Your task to perform on an android device: change timer sound Image 0: 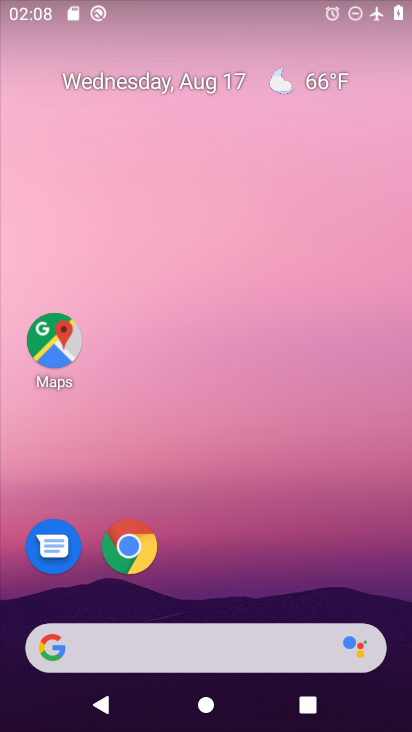
Step 0: drag from (243, 584) to (233, 130)
Your task to perform on an android device: change timer sound Image 1: 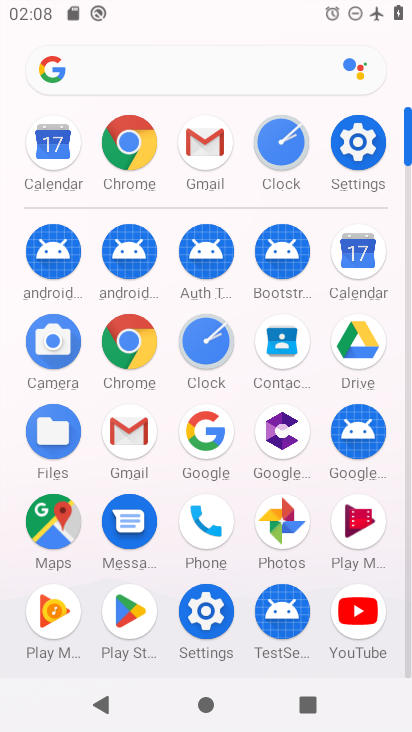
Step 1: click (205, 341)
Your task to perform on an android device: change timer sound Image 2: 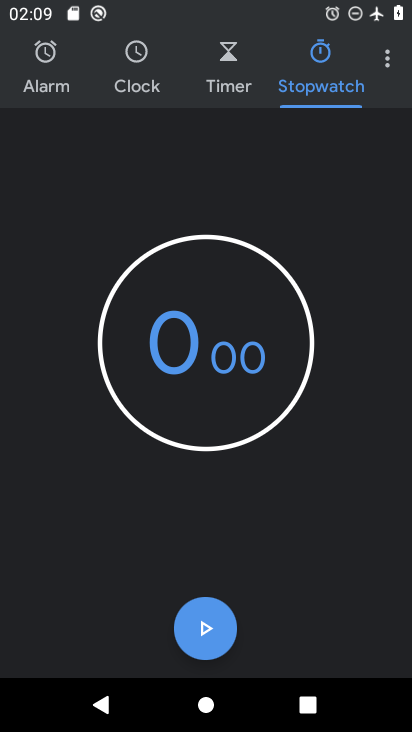
Step 2: click (384, 56)
Your task to perform on an android device: change timer sound Image 3: 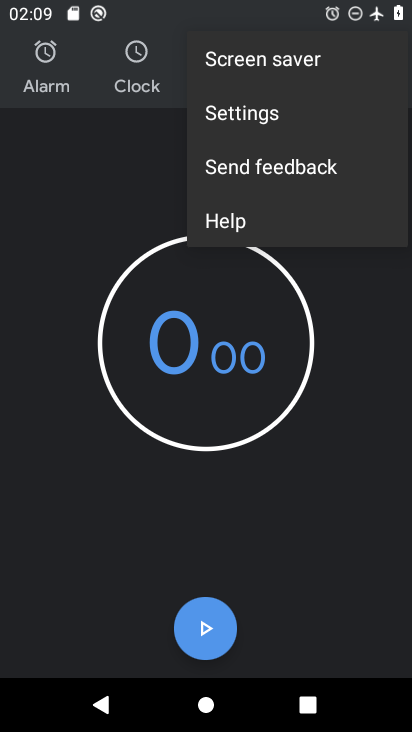
Step 3: click (246, 113)
Your task to perform on an android device: change timer sound Image 4: 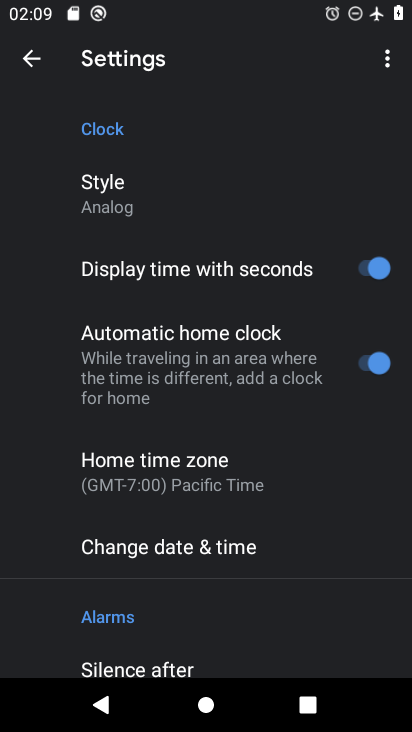
Step 4: drag from (199, 606) to (167, 208)
Your task to perform on an android device: change timer sound Image 5: 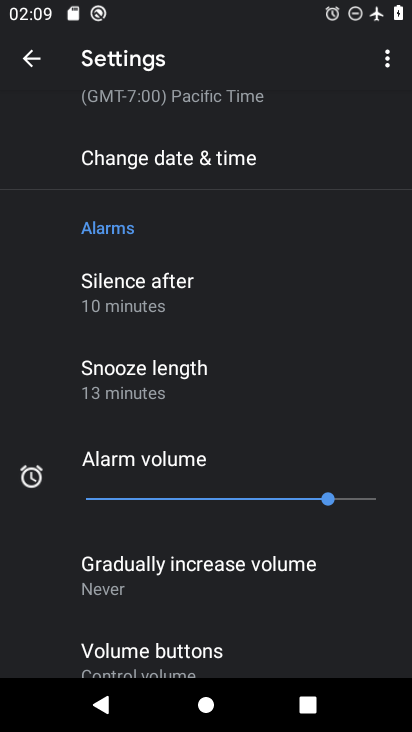
Step 5: drag from (239, 606) to (222, 253)
Your task to perform on an android device: change timer sound Image 6: 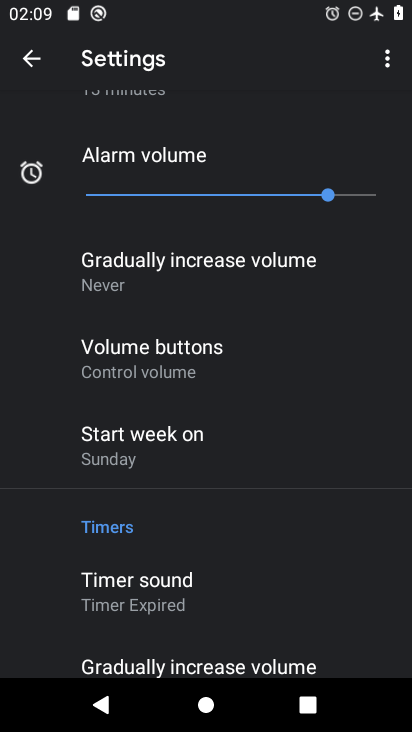
Step 6: click (152, 578)
Your task to perform on an android device: change timer sound Image 7: 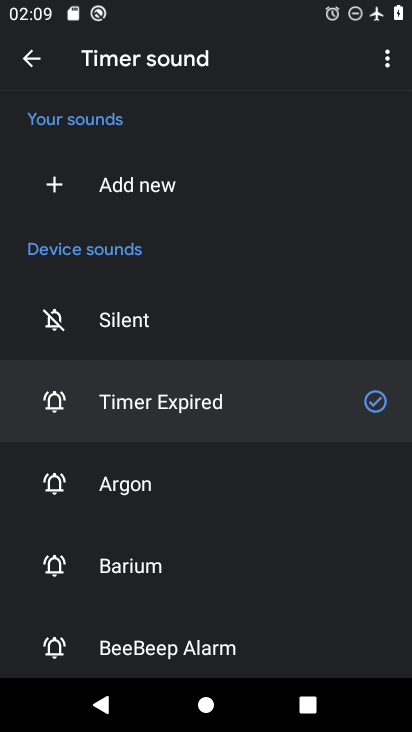
Step 7: click (133, 489)
Your task to perform on an android device: change timer sound Image 8: 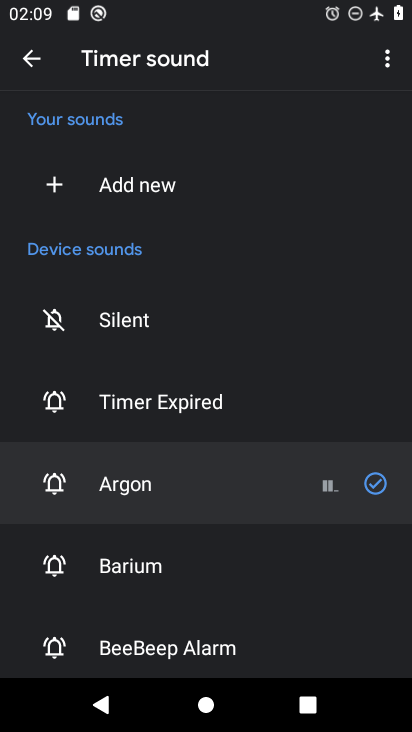
Step 8: task complete